Your task to perform on an android device: Go to Maps Image 0: 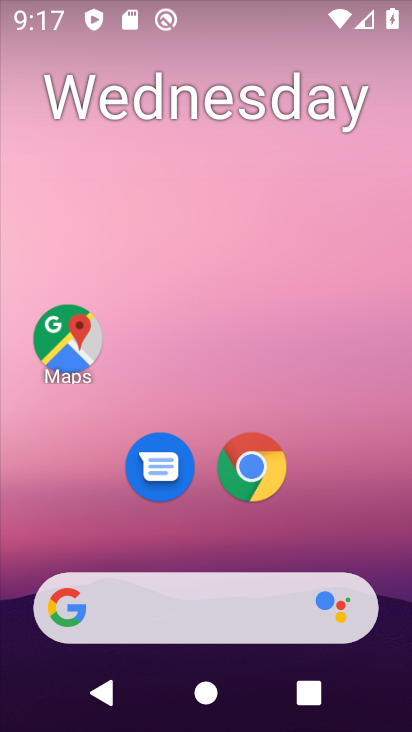
Step 0: drag from (201, 727) to (203, 147)
Your task to perform on an android device: Go to Maps Image 1: 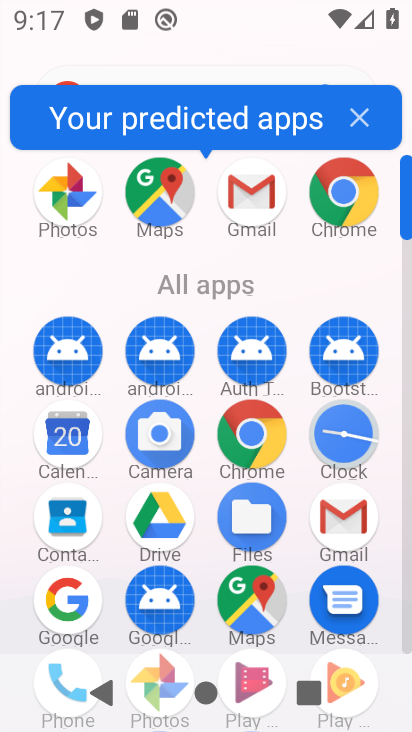
Step 1: click (163, 191)
Your task to perform on an android device: Go to Maps Image 2: 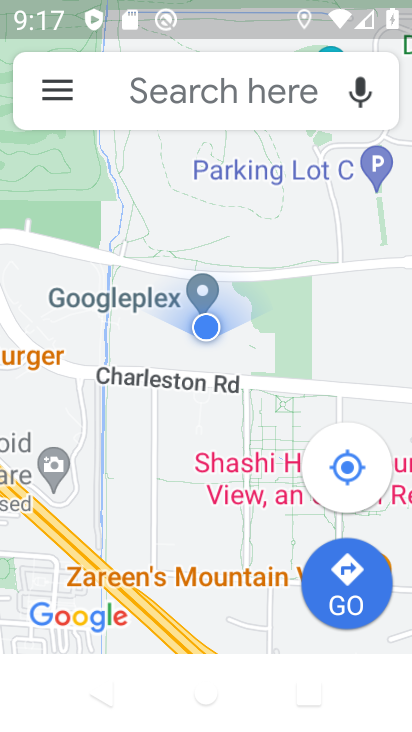
Step 2: task complete